Your task to perform on an android device: turn off priority inbox in the gmail app Image 0: 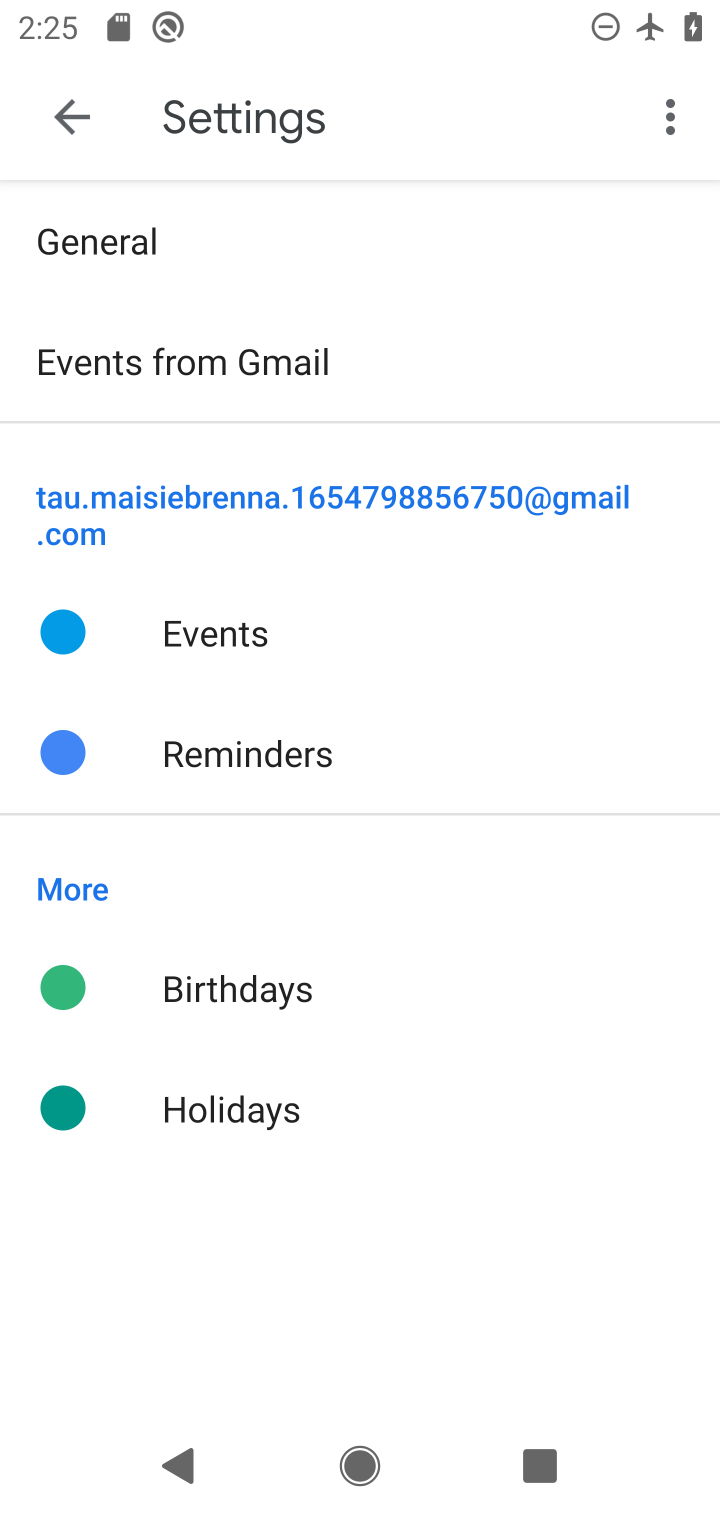
Step 0: press home button
Your task to perform on an android device: turn off priority inbox in the gmail app Image 1: 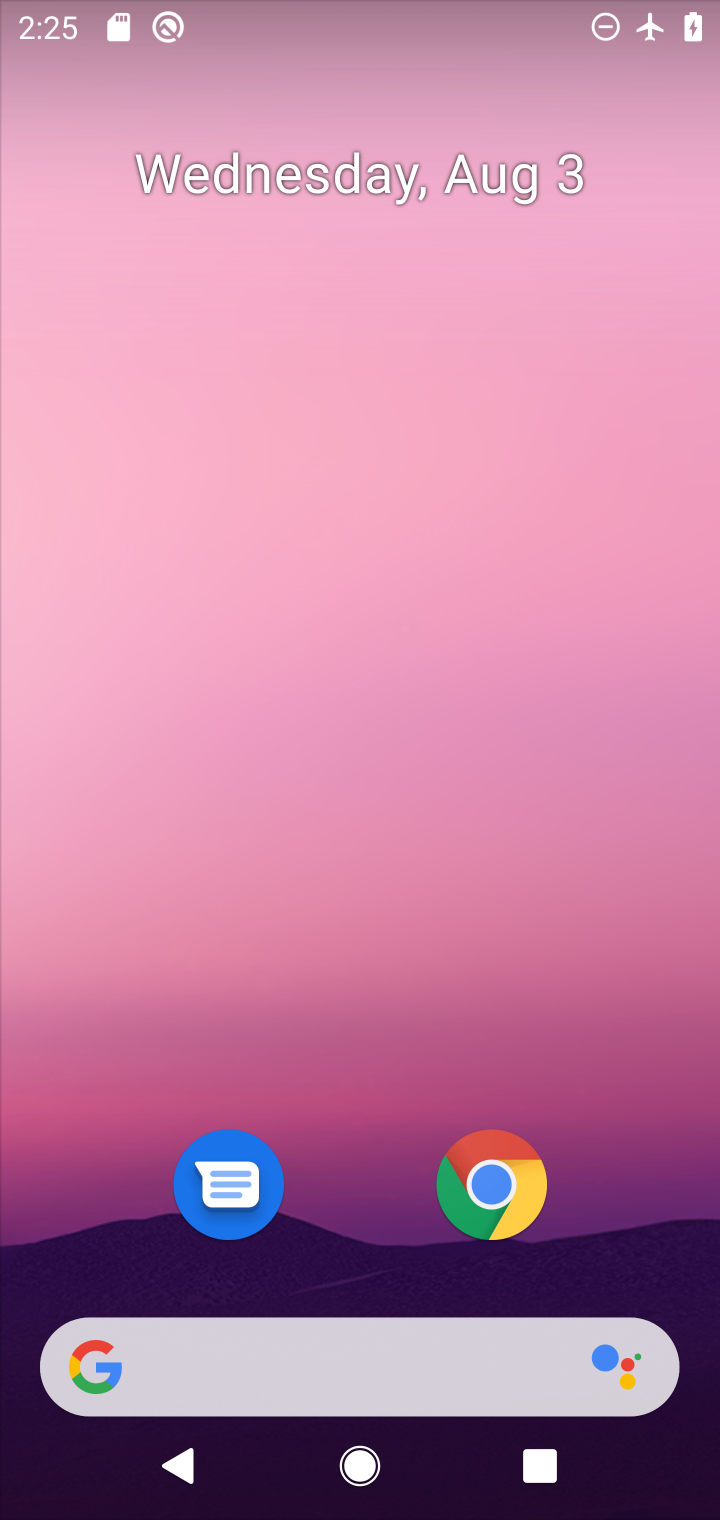
Step 1: drag from (420, 704) to (442, 60)
Your task to perform on an android device: turn off priority inbox in the gmail app Image 2: 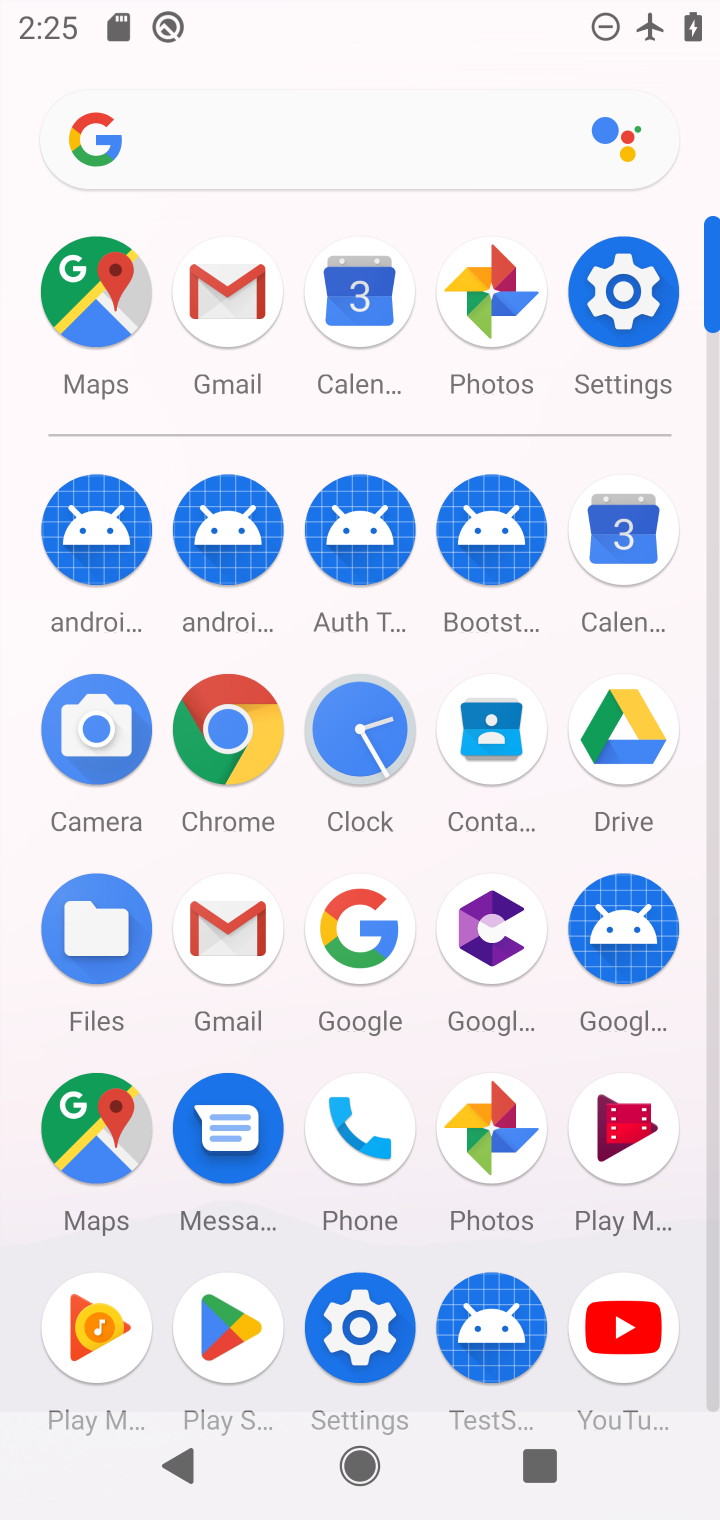
Step 2: click (233, 300)
Your task to perform on an android device: turn off priority inbox in the gmail app Image 3: 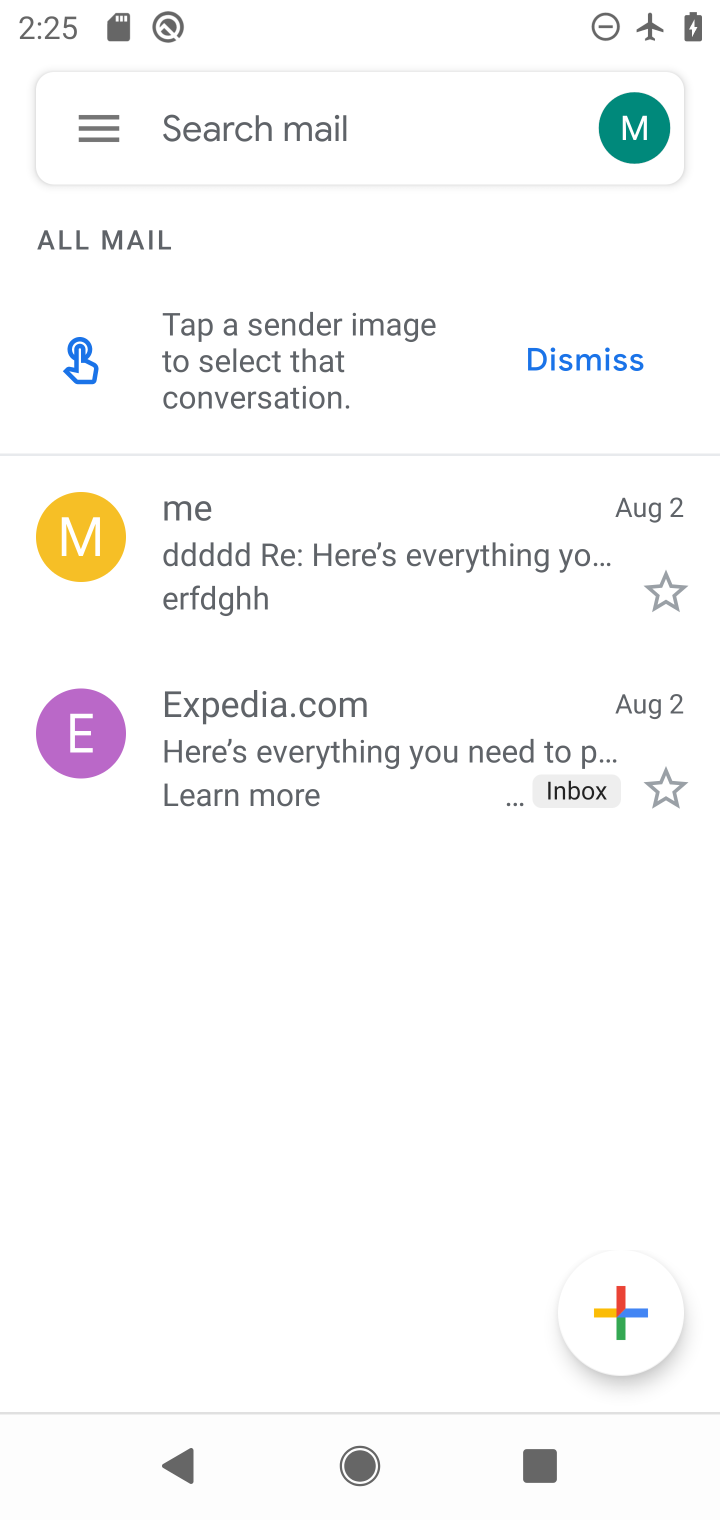
Step 3: click (95, 138)
Your task to perform on an android device: turn off priority inbox in the gmail app Image 4: 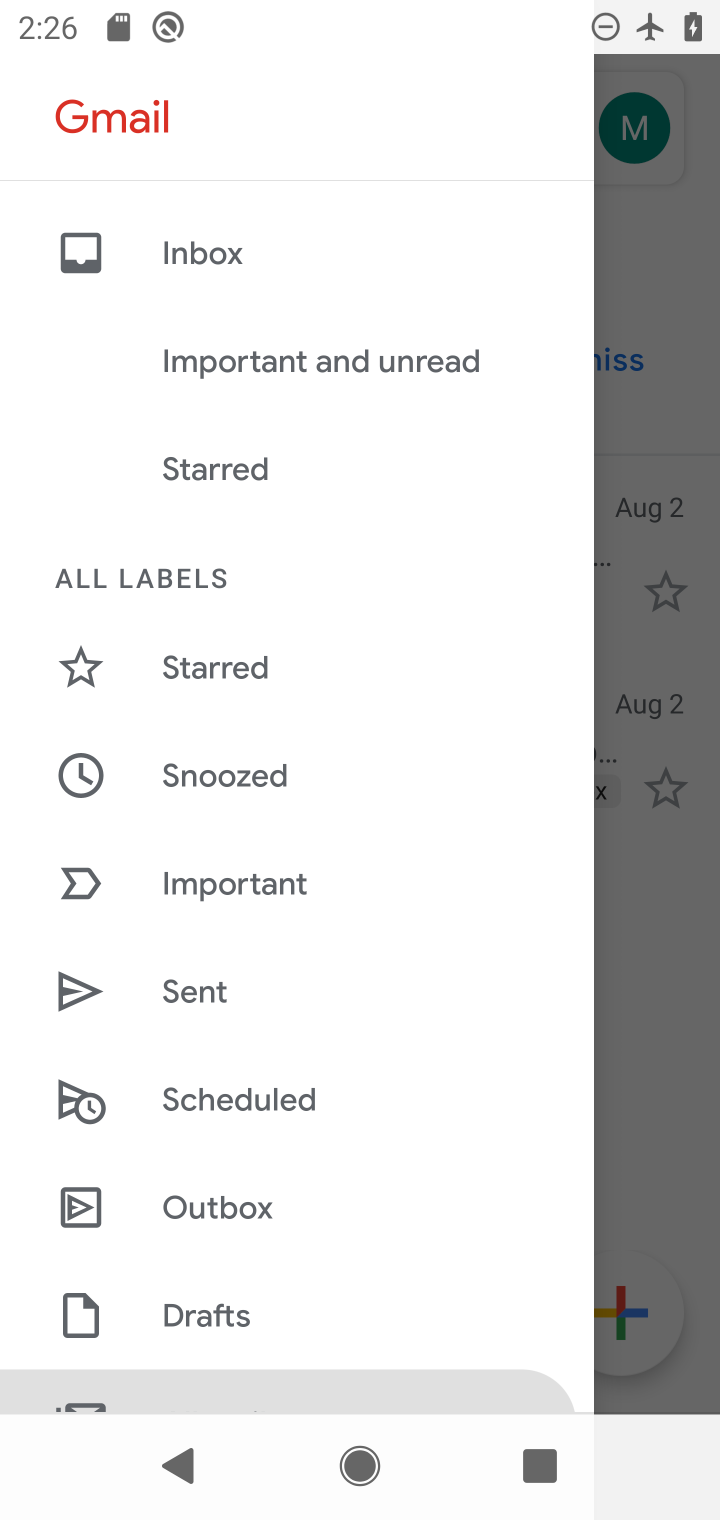
Step 4: drag from (329, 1127) to (405, 138)
Your task to perform on an android device: turn off priority inbox in the gmail app Image 5: 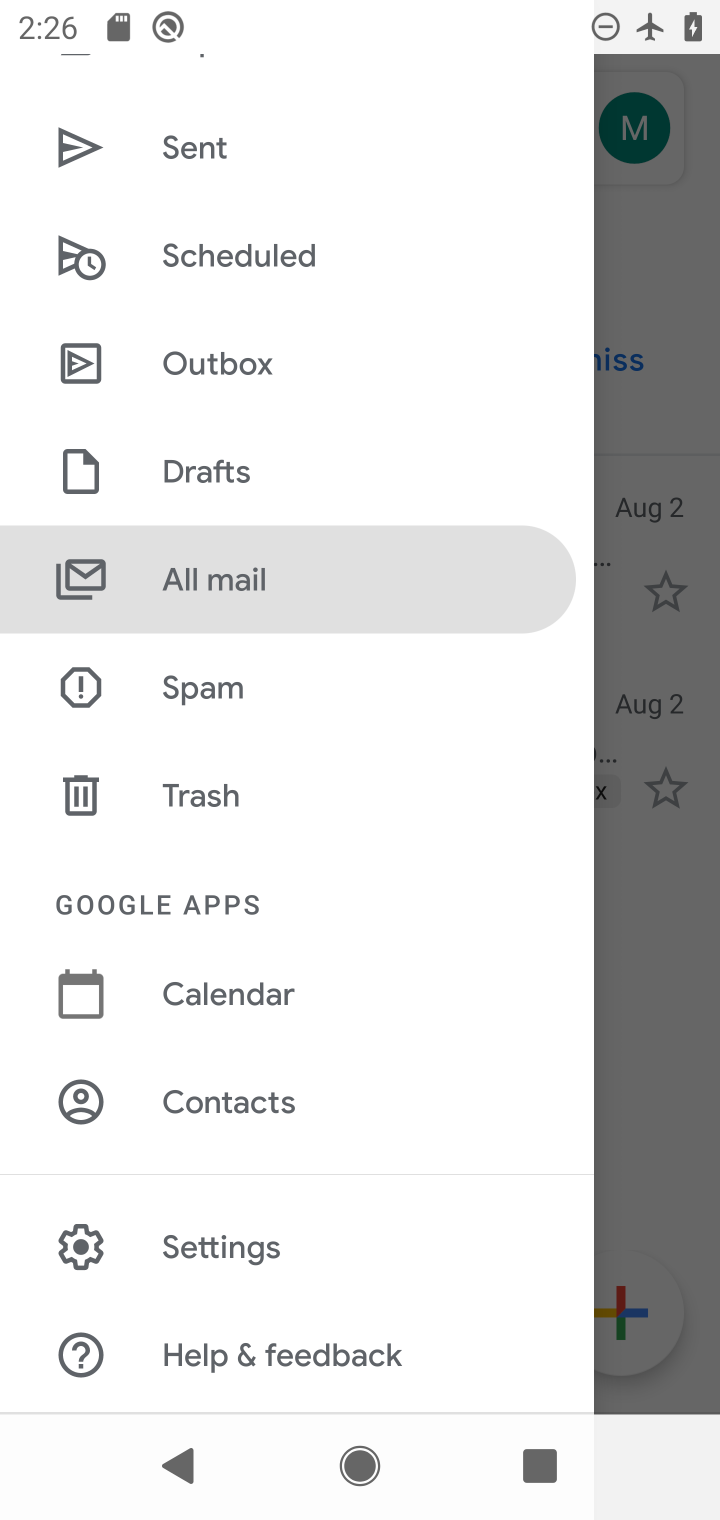
Step 5: click (229, 1245)
Your task to perform on an android device: turn off priority inbox in the gmail app Image 6: 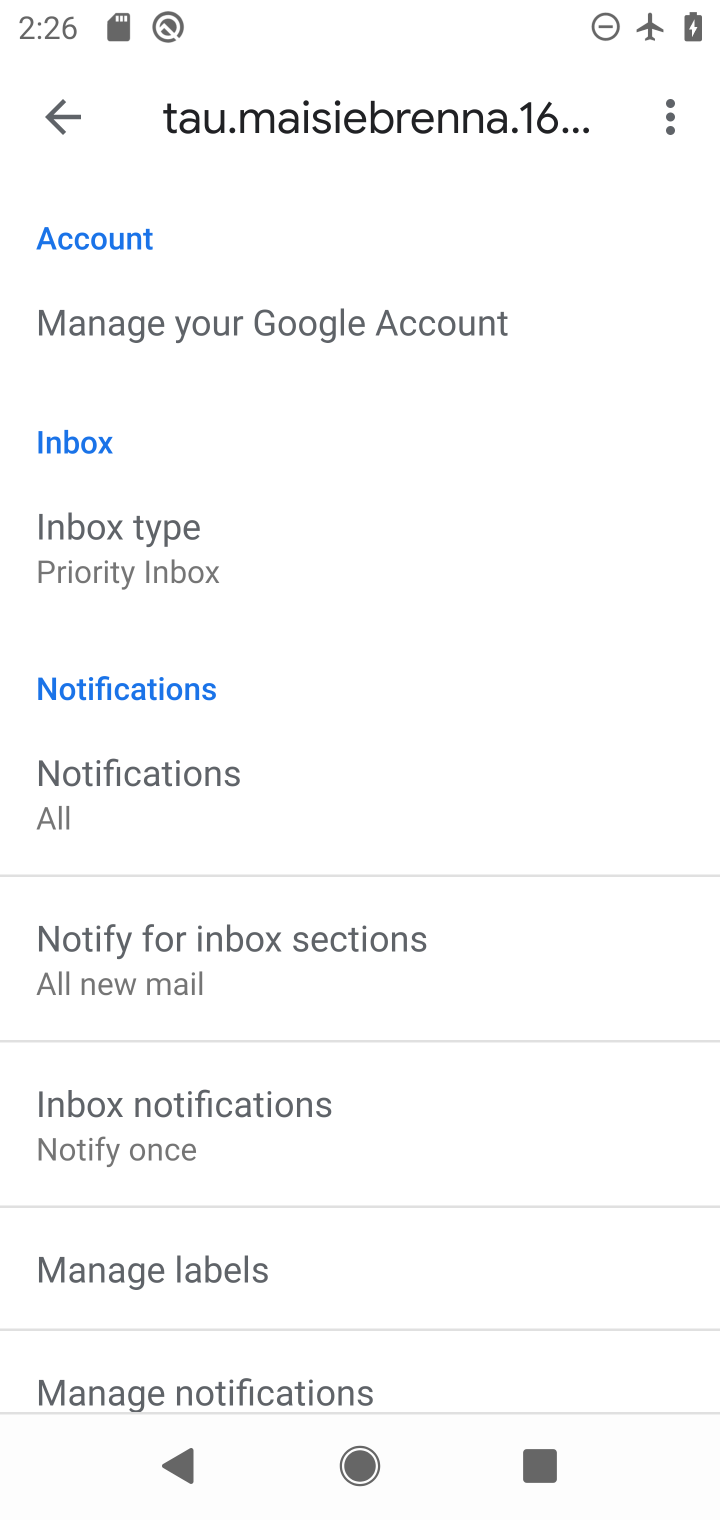
Step 6: click (173, 532)
Your task to perform on an android device: turn off priority inbox in the gmail app Image 7: 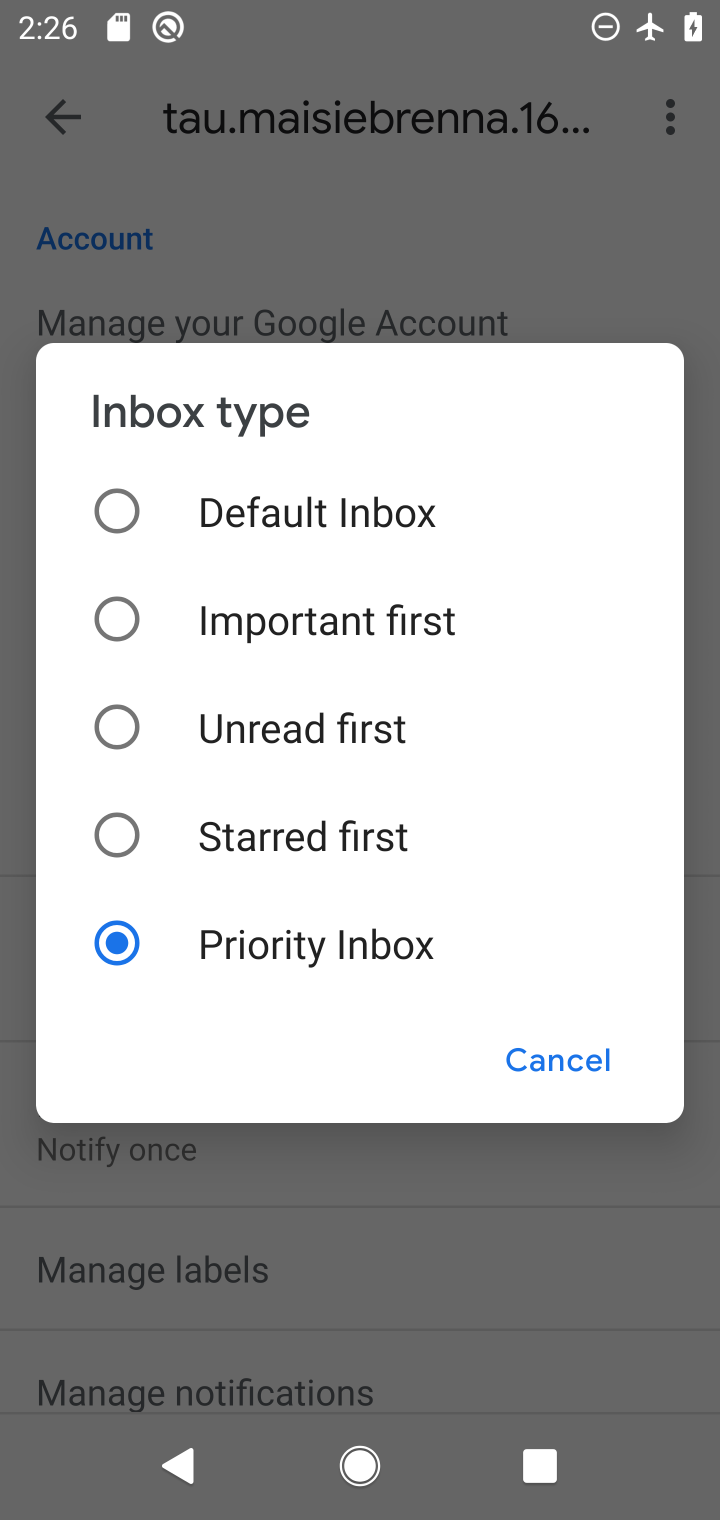
Step 7: click (106, 499)
Your task to perform on an android device: turn off priority inbox in the gmail app Image 8: 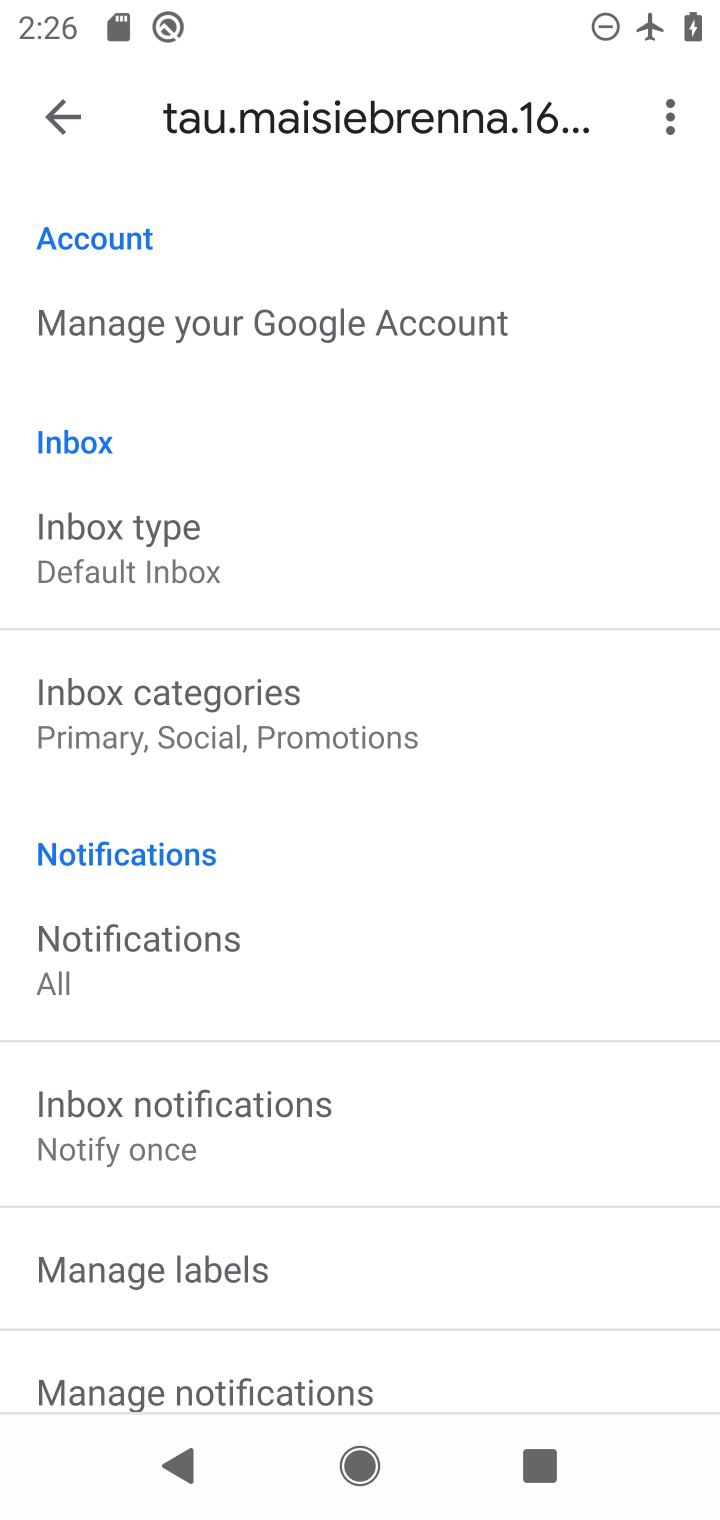
Step 8: task complete